Your task to perform on an android device: Show me recent news Image 0: 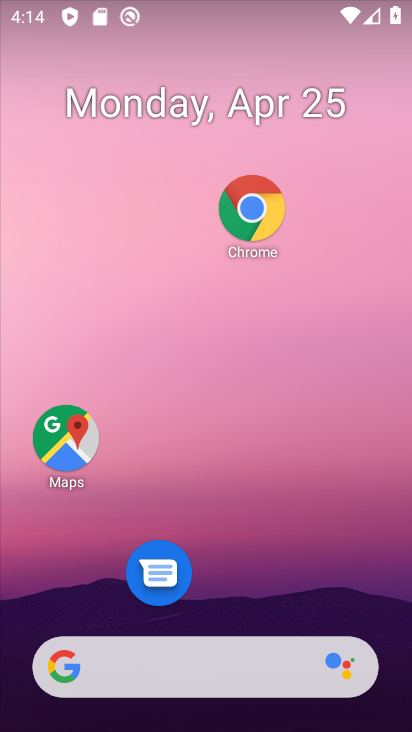
Step 0: drag from (222, 451) to (261, 180)
Your task to perform on an android device: Show me recent news Image 1: 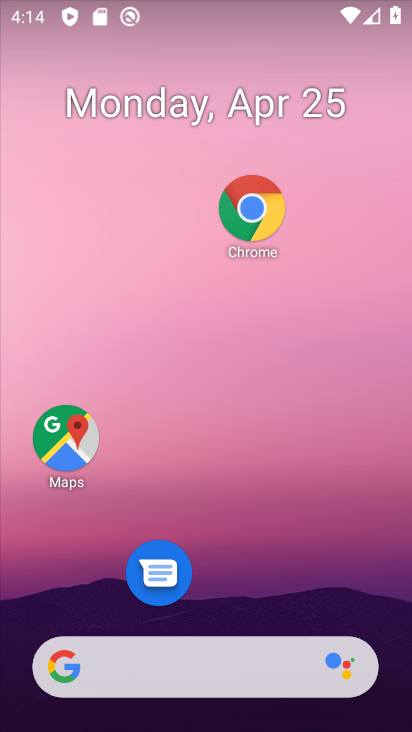
Step 1: drag from (224, 603) to (243, 123)
Your task to perform on an android device: Show me recent news Image 2: 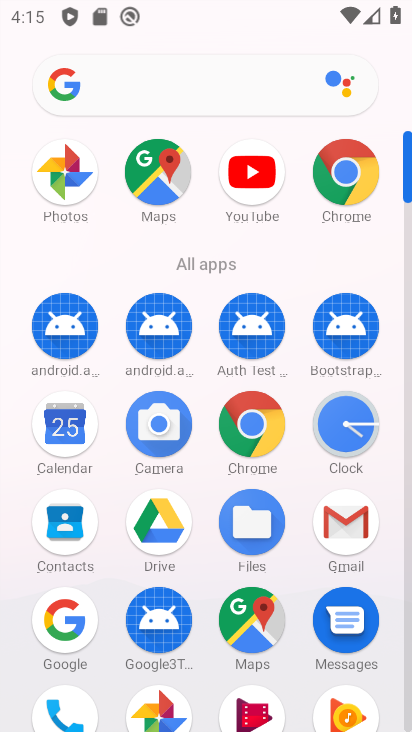
Step 2: click (67, 617)
Your task to perform on an android device: Show me recent news Image 3: 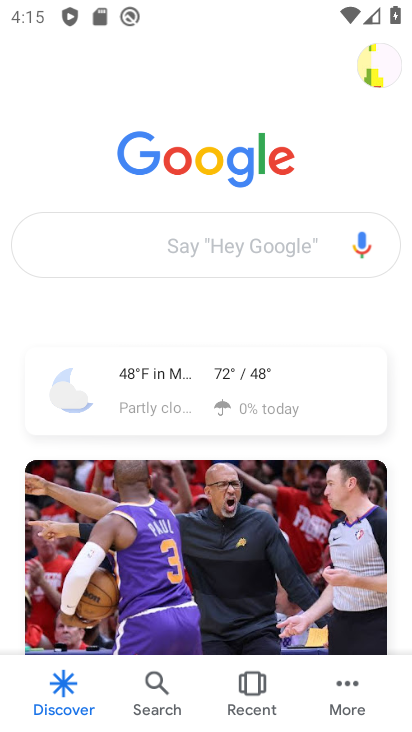
Step 3: click (183, 235)
Your task to perform on an android device: Show me recent news Image 4: 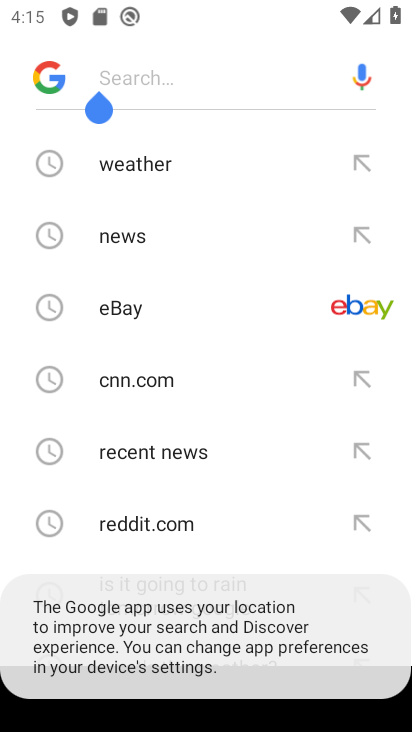
Step 4: click (129, 231)
Your task to perform on an android device: Show me recent news Image 5: 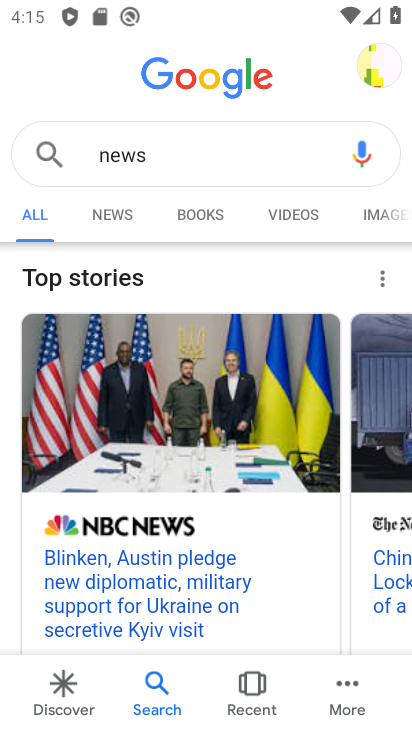
Step 5: click (109, 212)
Your task to perform on an android device: Show me recent news Image 6: 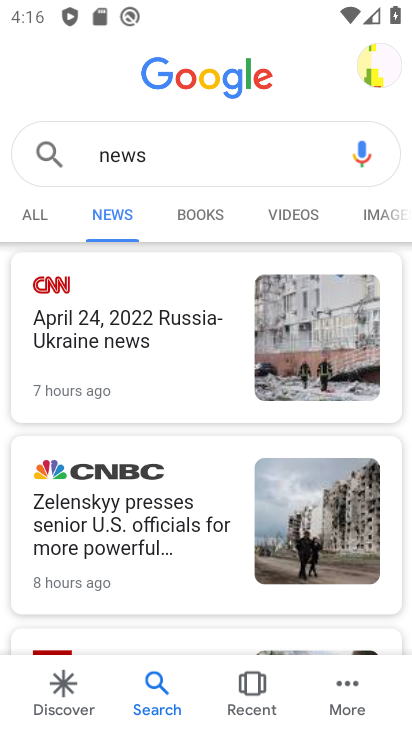
Step 6: task complete